Your task to perform on an android device: Open Youtube and go to "Your channel" Image 0: 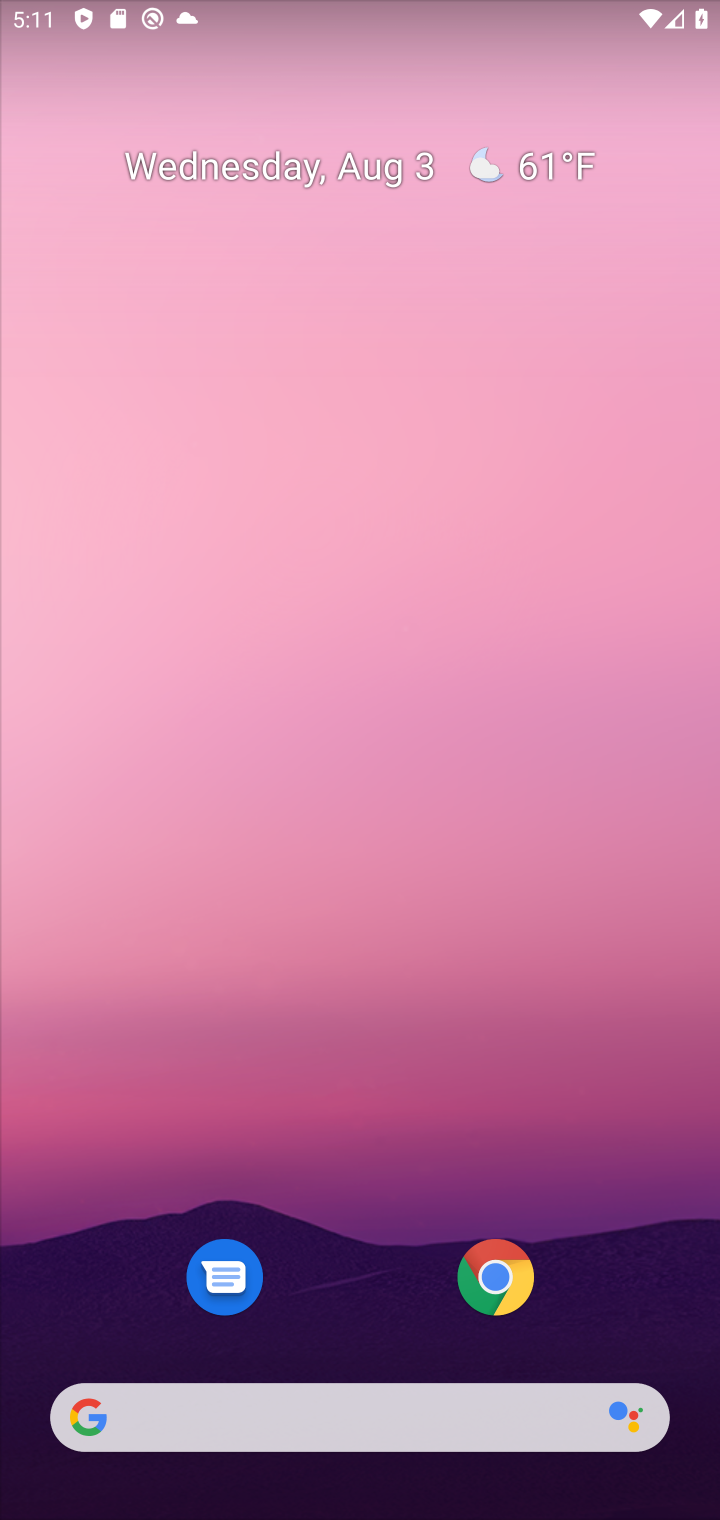
Step 0: drag from (385, 1322) to (419, 200)
Your task to perform on an android device: Open Youtube and go to "Your channel" Image 1: 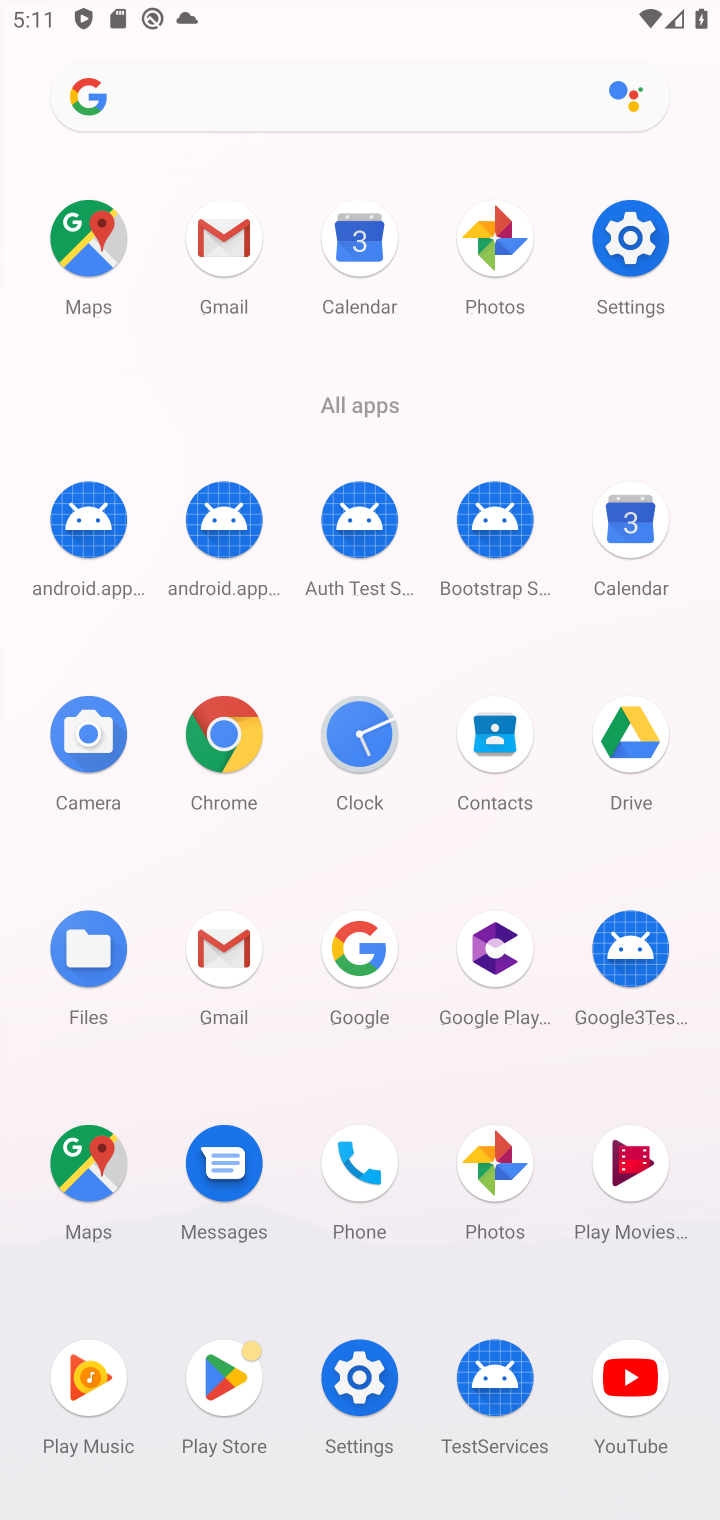
Step 1: click (633, 1389)
Your task to perform on an android device: Open Youtube and go to "Your channel" Image 2: 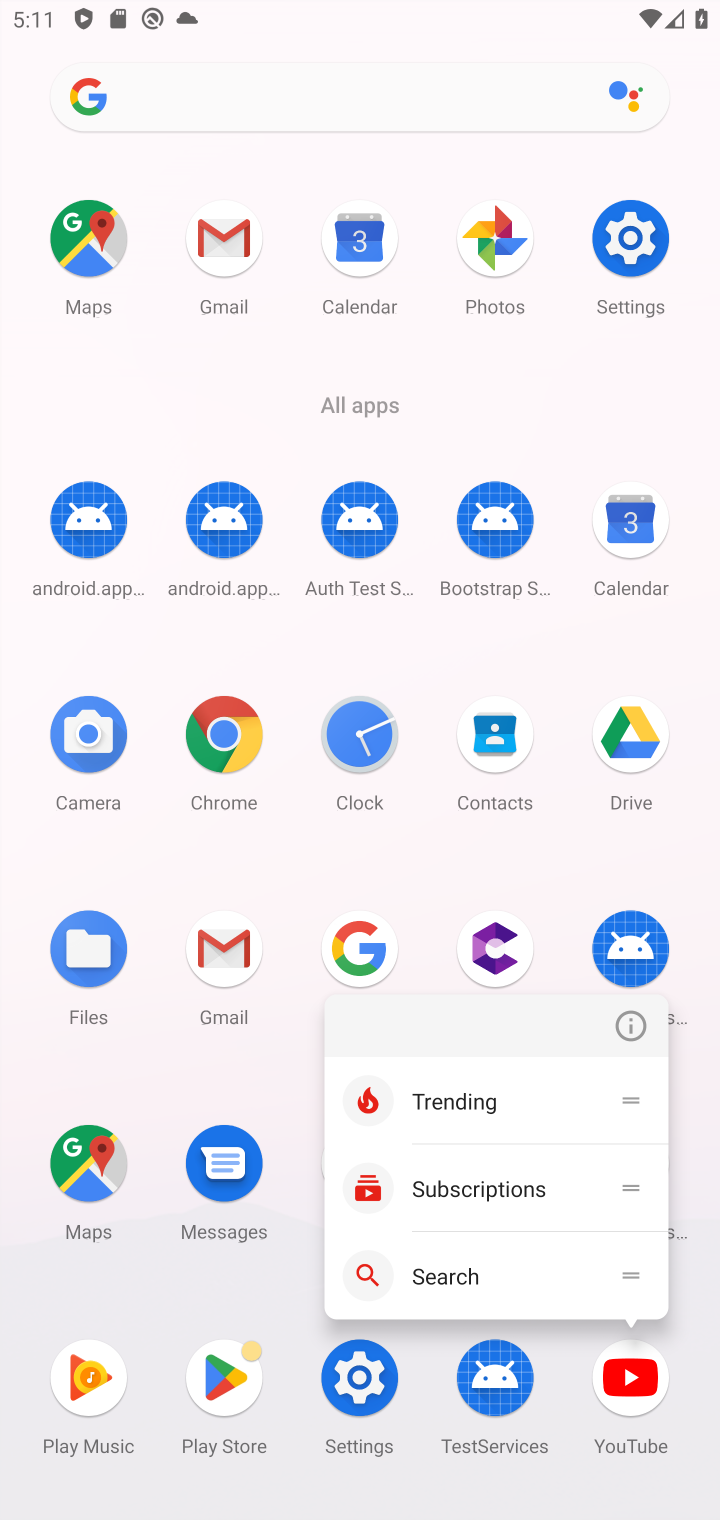
Step 2: click (633, 1389)
Your task to perform on an android device: Open Youtube and go to "Your channel" Image 3: 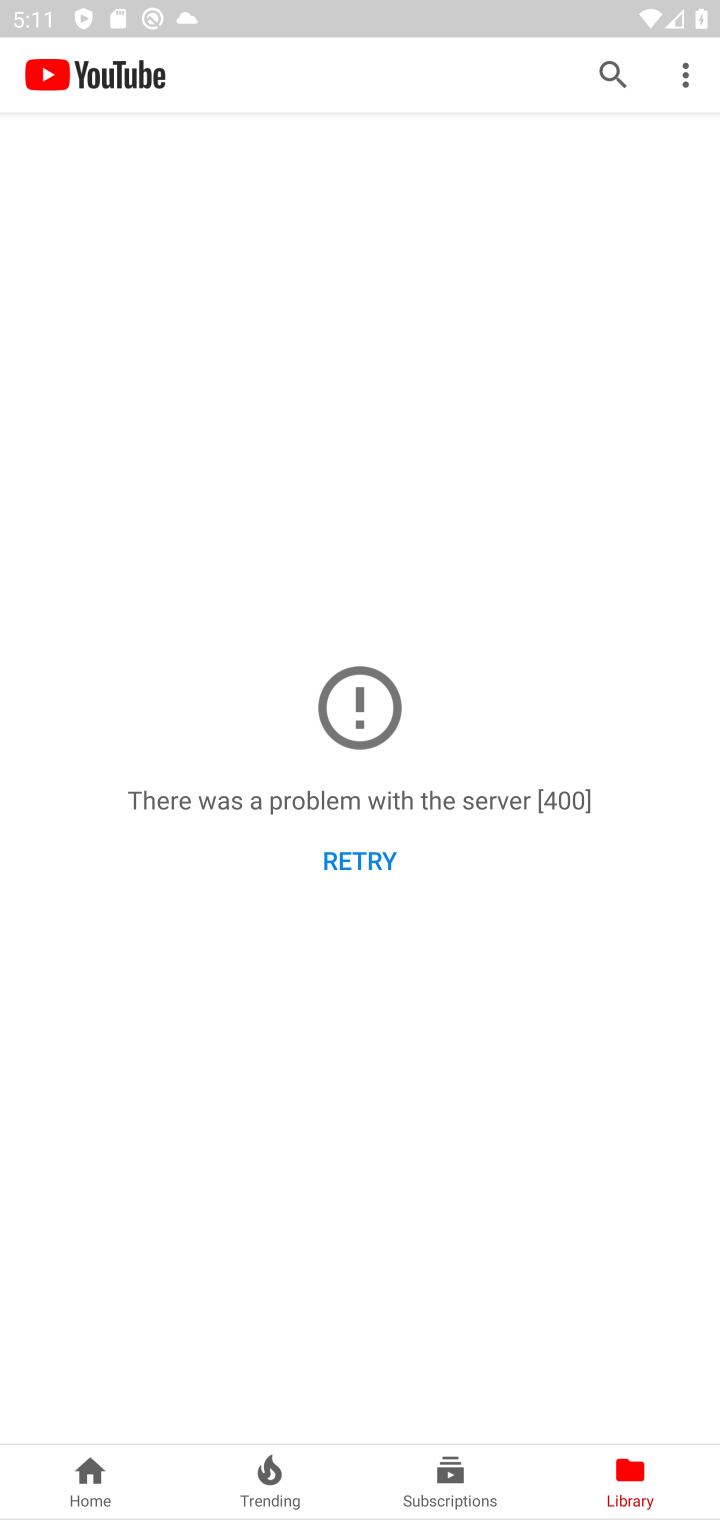
Step 3: task complete